Your task to perform on an android device: Open the calendar and show me this week's events? Image 0: 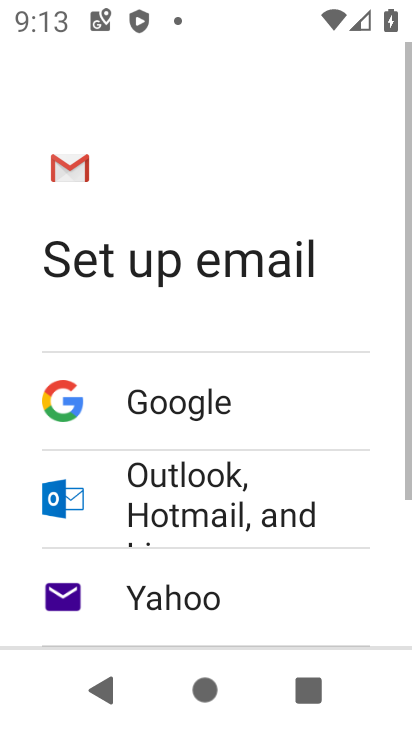
Step 0: press home button
Your task to perform on an android device: Open the calendar and show me this week's events? Image 1: 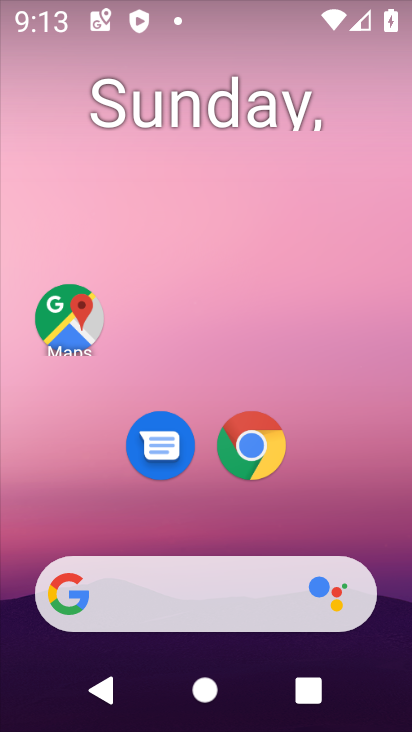
Step 1: drag from (392, 568) to (346, 141)
Your task to perform on an android device: Open the calendar and show me this week's events? Image 2: 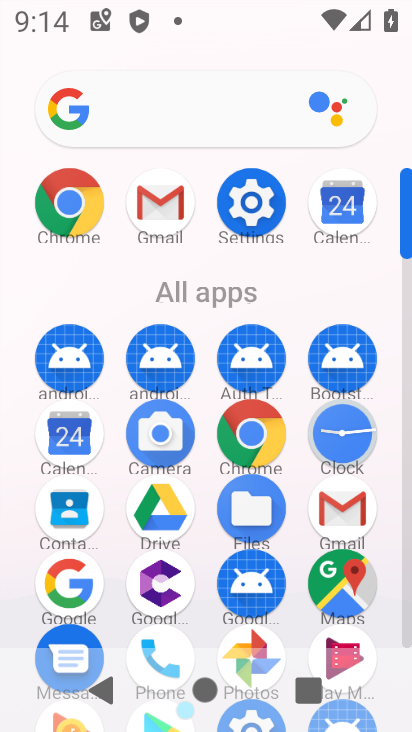
Step 2: click (404, 635)
Your task to perform on an android device: Open the calendar and show me this week's events? Image 3: 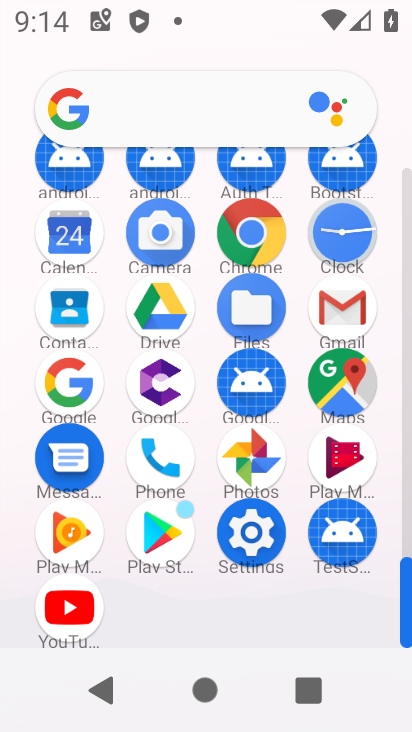
Step 3: click (65, 233)
Your task to perform on an android device: Open the calendar and show me this week's events? Image 4: 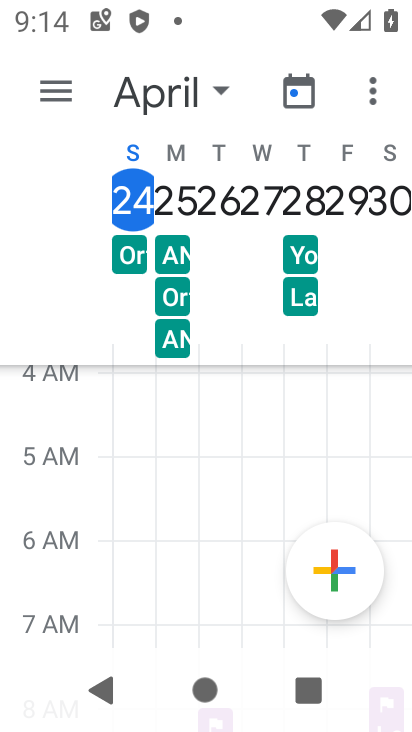
Step 4: click (57, 80)
Your task to perform on an android device: Open the calendar and show me this week's events? Image 5: 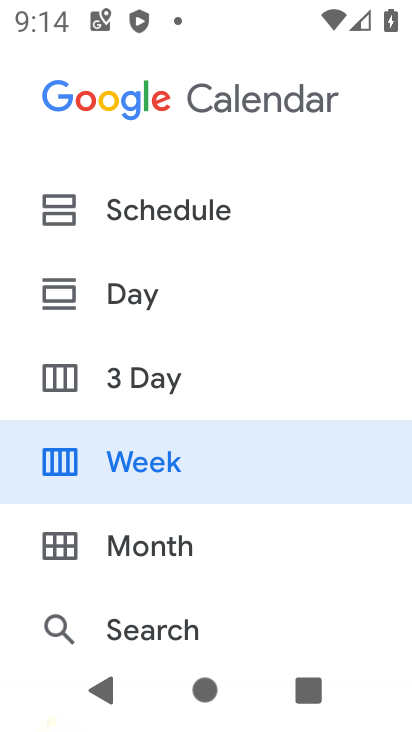
Step 5: click (174, 454)
Your task to perform on an android device: Open the calendar and show me this week's events? Image 6: 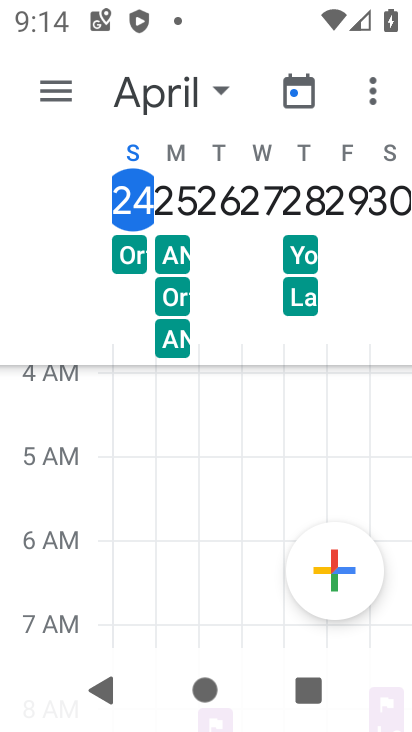
Step 6: task complete